Your task to perform on an android device: change the clock display to analog Image 0: 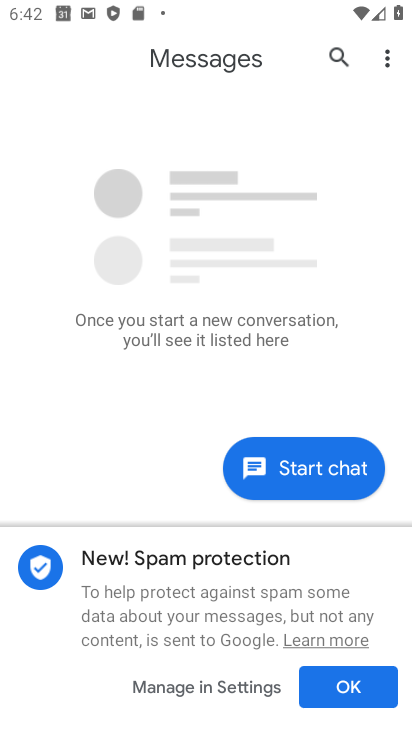
Step 0: press home button
Your task to perform on an android device: change the clock display to analog Image 1: 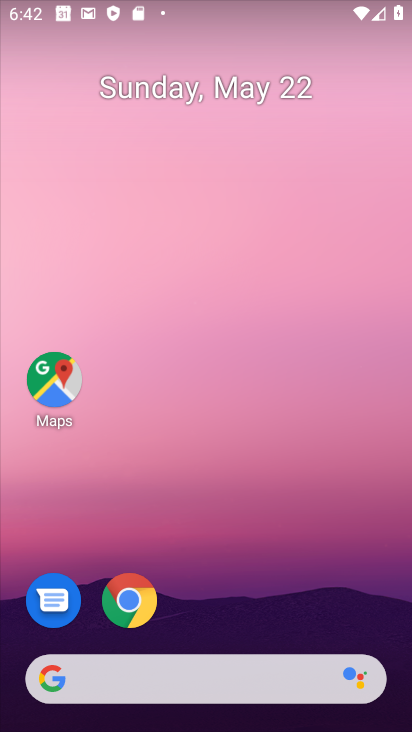
Step 1: drag from (323, 624) to (108, 65)
Your task to perform on an android device: change the clock display to analog Image 2: 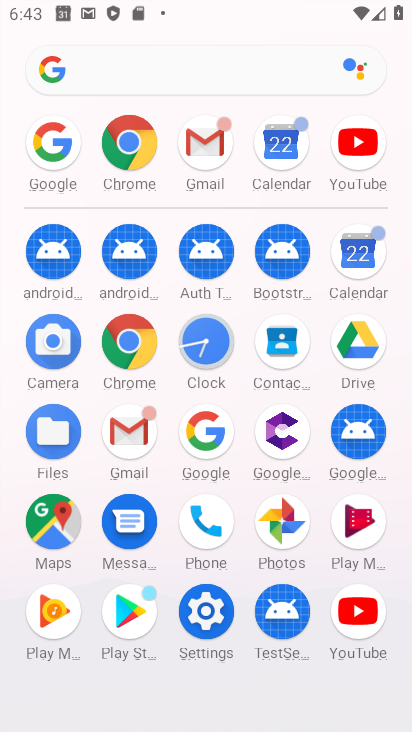
Step 2: click (204, 358)
Your task to perform on an android device: change the clock display to analog Image 3: 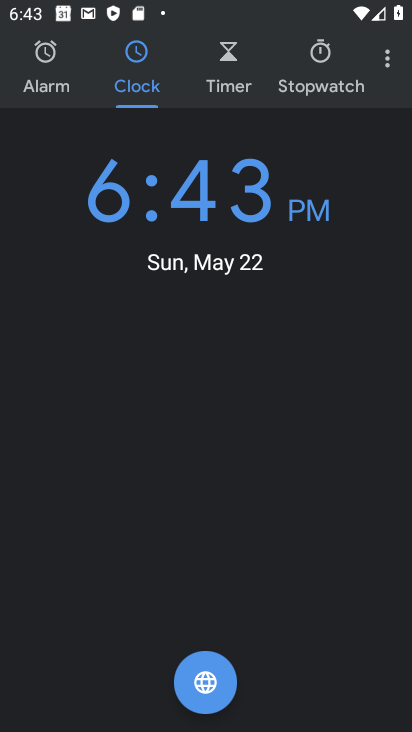
Step 3: click (384, 61)
Your task to perform on an android device: change the clock display to analog Image 4: 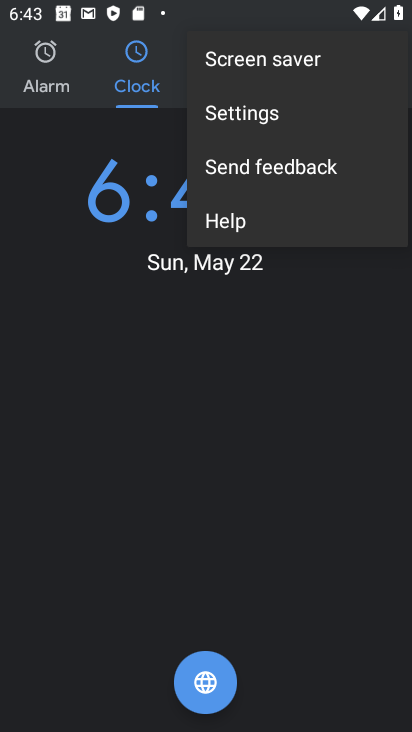
Step 4: click (249, 118)
Your task to perform on an android device: change the clock display to analog Image 5: 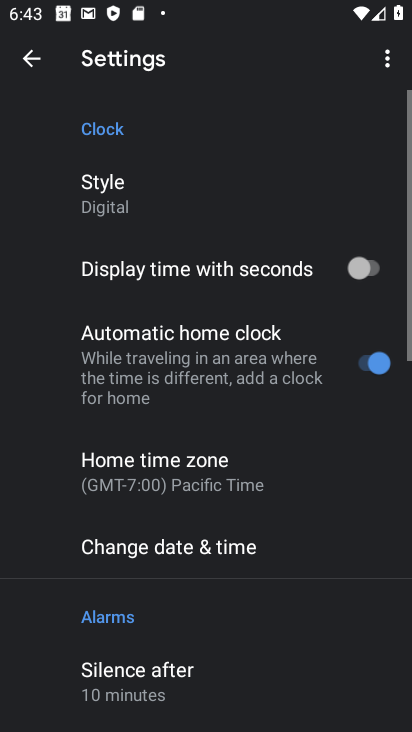
Step 5: click (189, 198)
Your task to perform on an android device: change the clock display to analog Image 6: 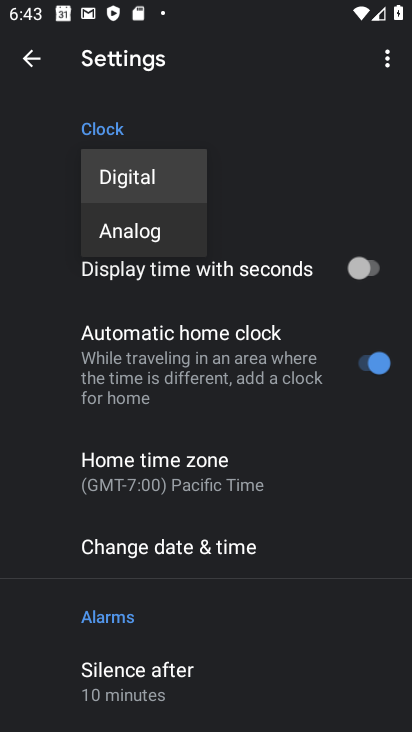
Step 6: click (163, 225)
Your task to perform on an android device: change the clock display to analog Image 7: 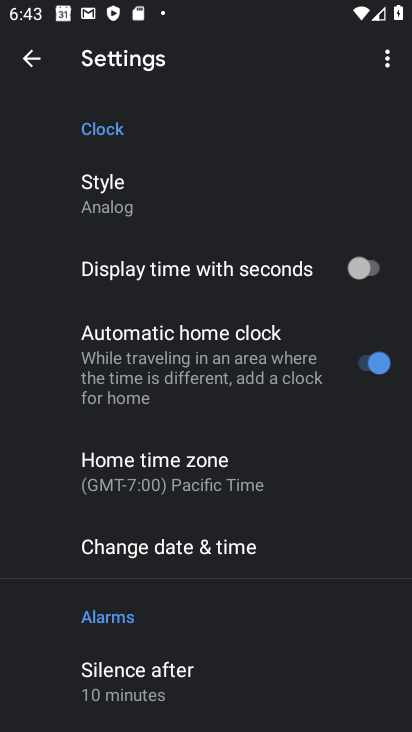
Step 7: task complete